Your task to perform on an android device: snooze an email in the gmail app Image 0: 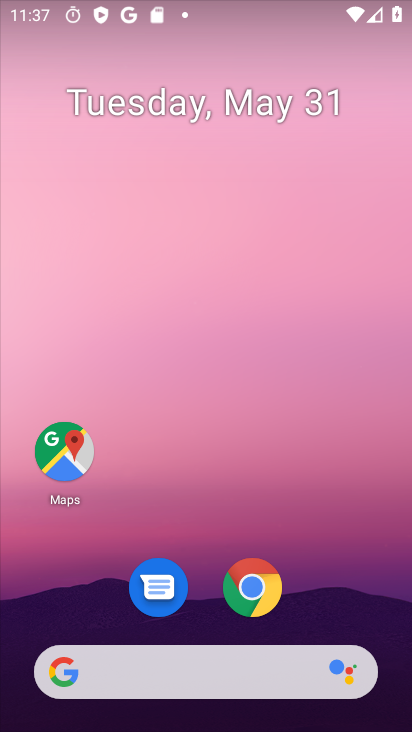
Step 0: drag from (316, 574) to (248, 251)
Your task to perform on an android device: snooze an email in the gmail app Image 1: 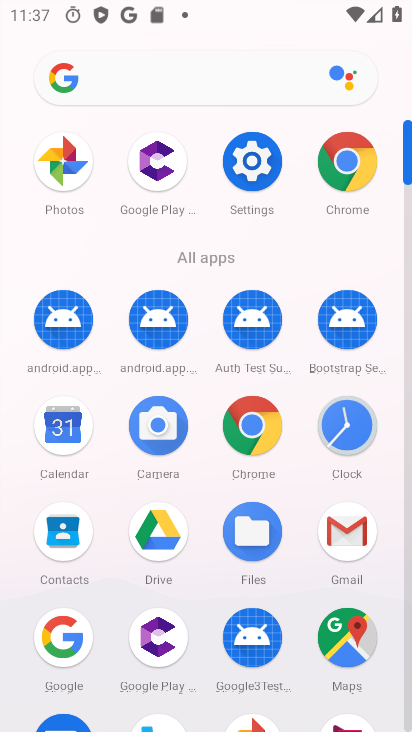
Step 1: click (347, 532)
Your task to perform on an android device: snooze an email in the gmail app Image 2: 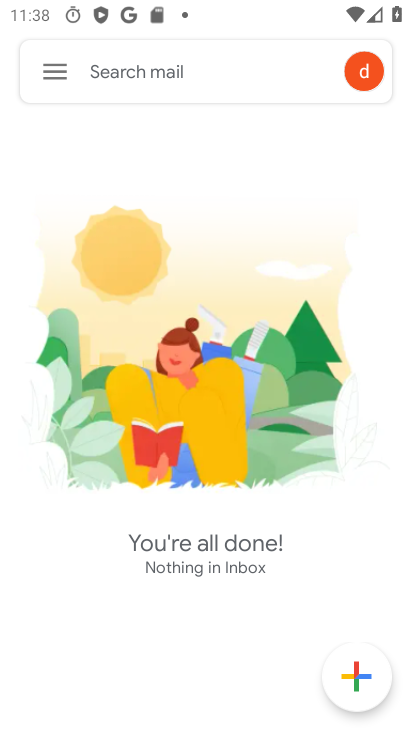
Step 2: click (60, 70)
Your task to perform on an android device: snooze an email in the gmail app Image 3: 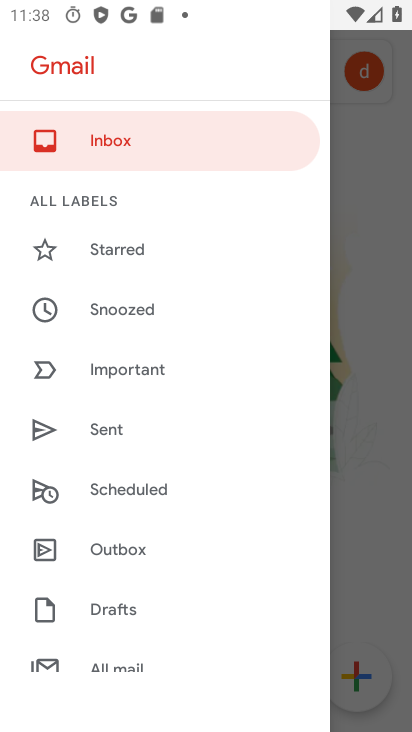
Step 3: click (117, 293)
Your task to perform on an android device: snooze an email in the gmail app Image 4: 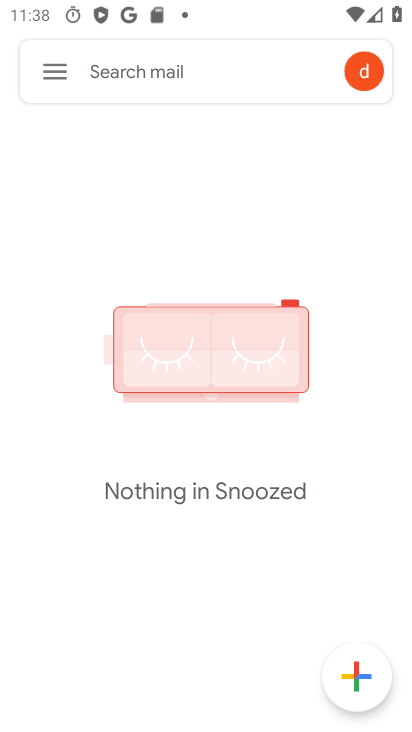
Step 4: click (55, 86)
Your task to perform on an android device: snooze an email in the gmail app Image 5: 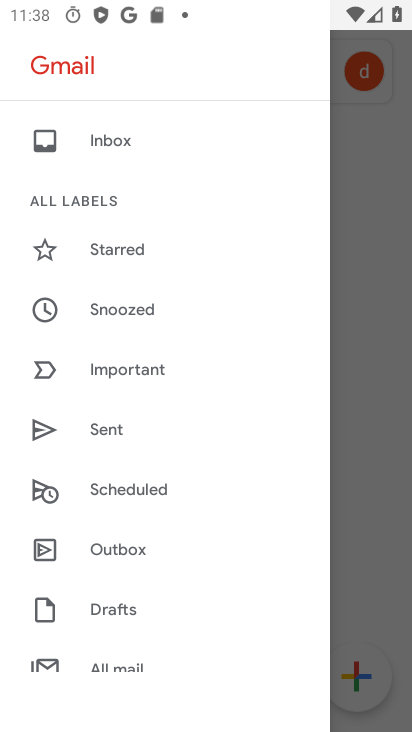
Step 5: click (100, 360)
Your task to perform on an android device: snooze an email in the gmail app Image 6: 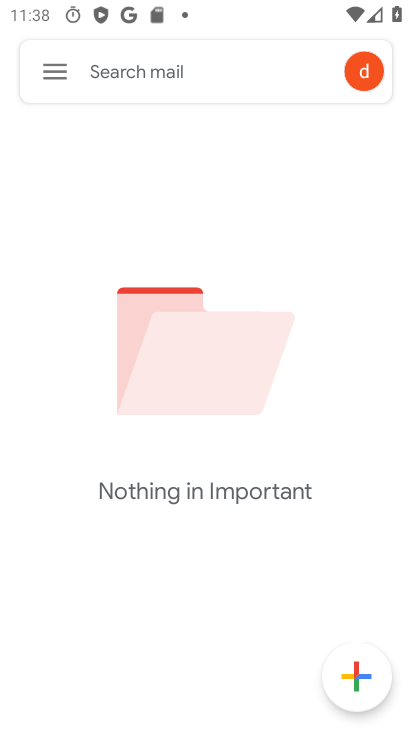
Step 6: click (65, 61)
Your task to perform on an android device: snooze an email in the gmail app Image 7: 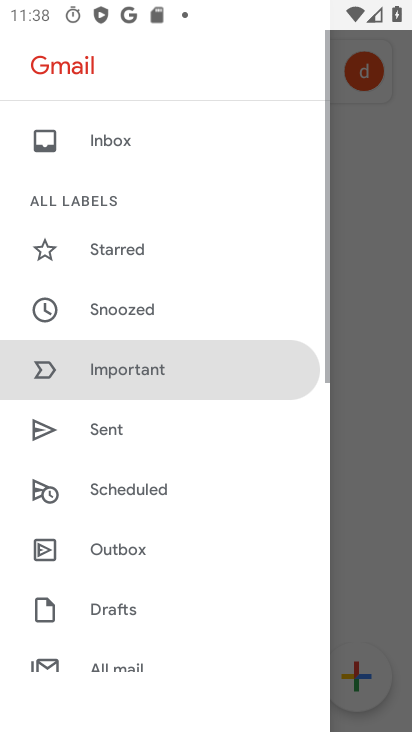
Step 7: drag from (140, 572) to (168, 507)
Your task to perform on an android device: snooze an email in the gmail app Image 8: 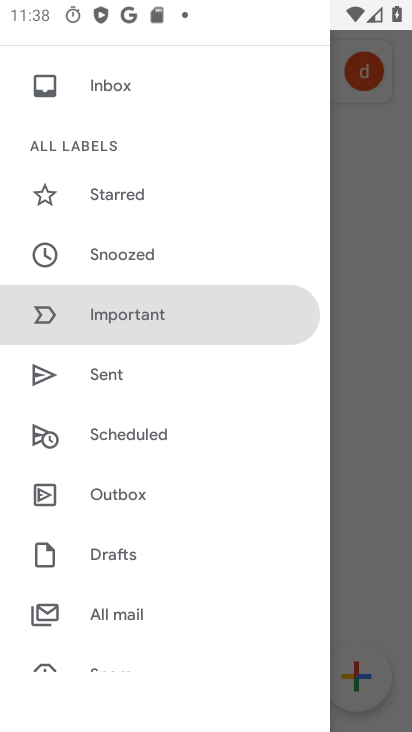
Step 8: click (115, 595)
Your task to perform on an android device: snooze an email in the gmail app Image 9: 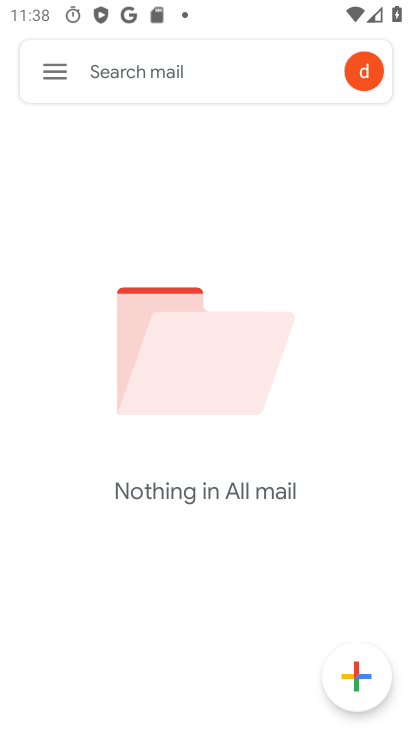
Step 9: task complete